Your task to perform on an android device: open app "Google News" (install if not already installed) Image 0: 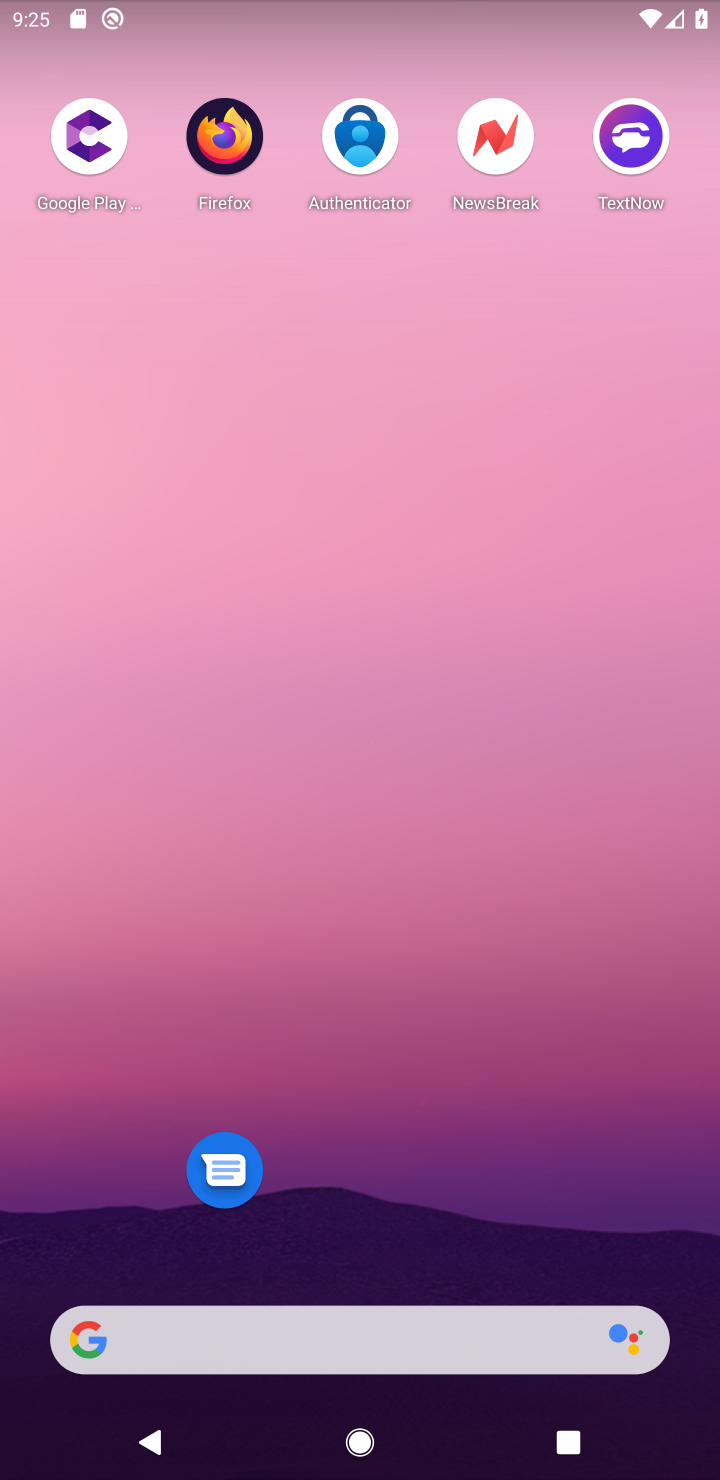
Step 0: drag from (498, 1286) to (340, 130)
Your task to perform on an android device: open app "Google News" (install if not already installed) Image 1: 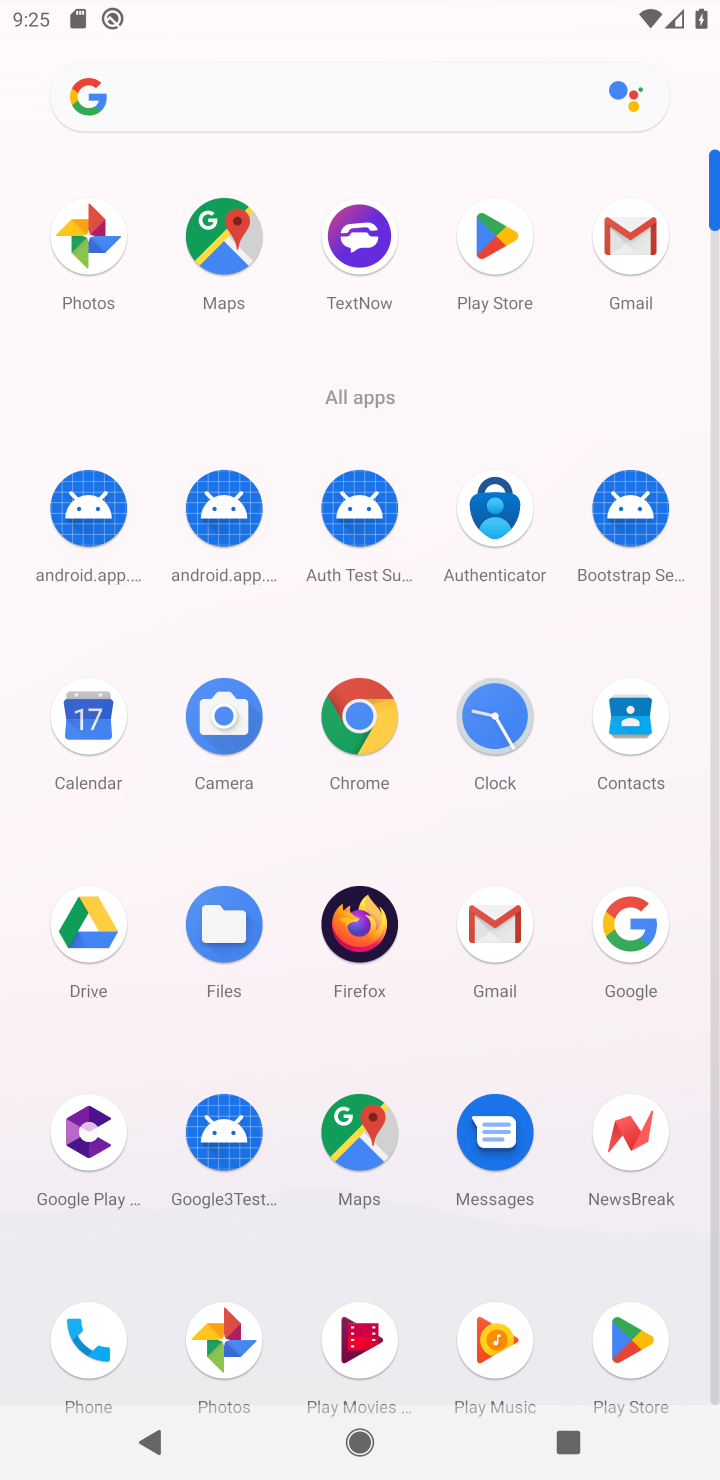
Step 1: click (499, 249)
Your task to perform on an android device: open app "Google News" (install if not already installed) Image 2: 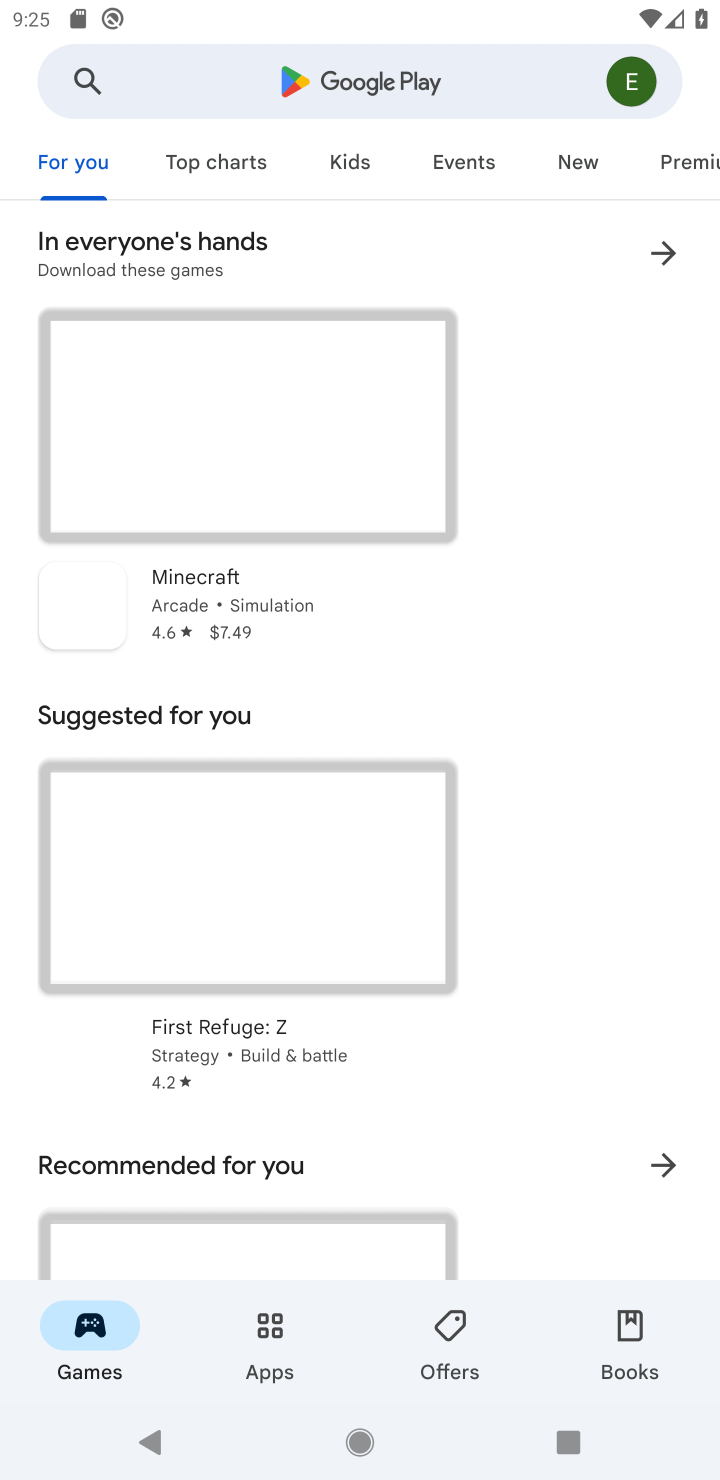
Step 2: click (211, 93)
Your task to perform on an android device: open app "Google News" (install if not already installed) Image 3: 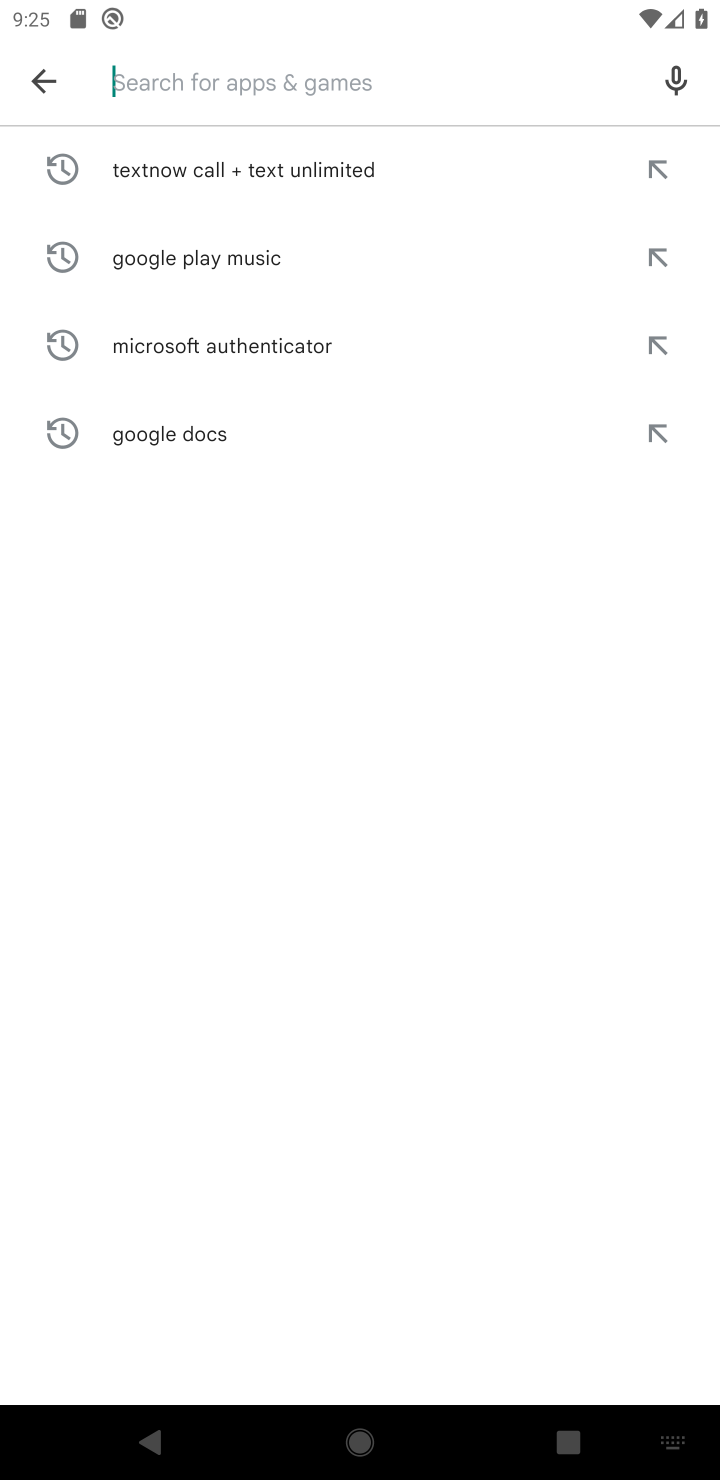
Step 3: type "Google News"
Your task to perform on an android device: open app "Google News" (install if not already installed) Image 4: 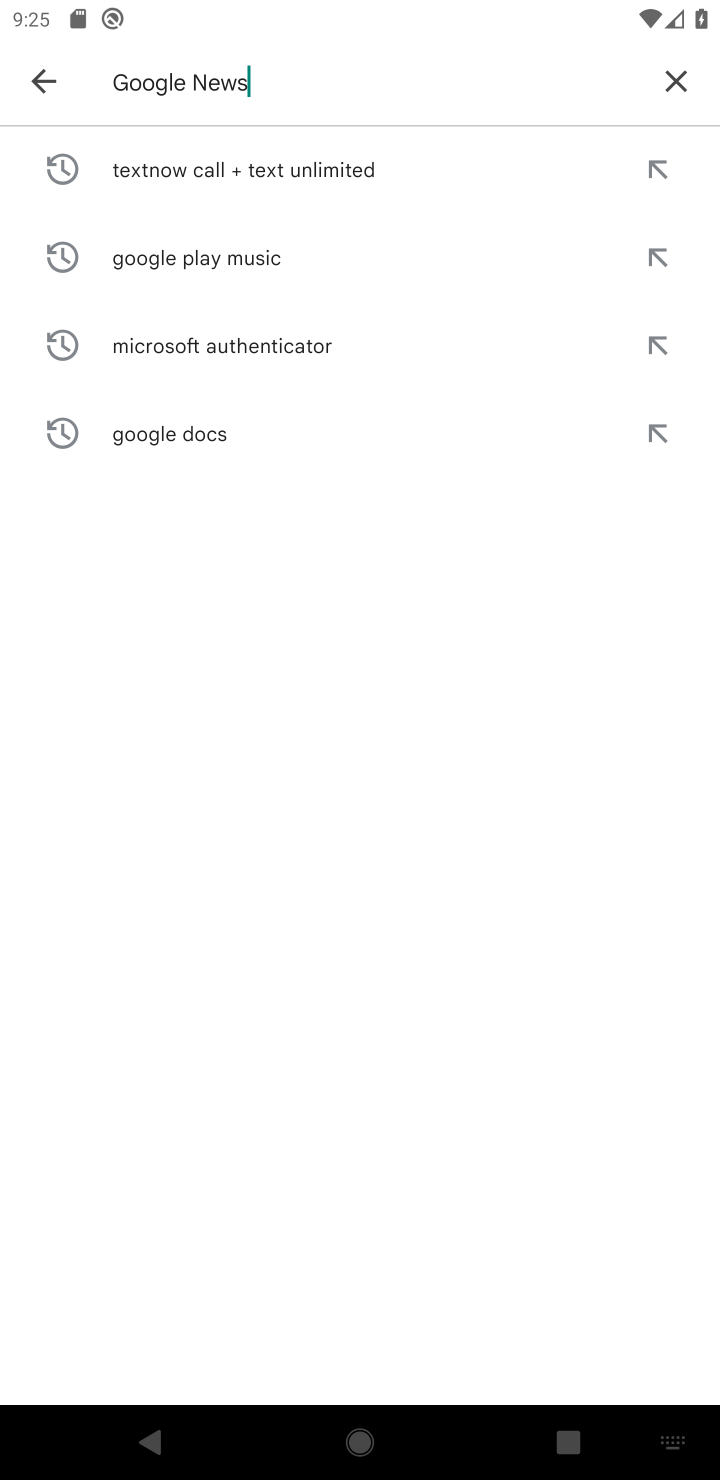
Step 4: type ""
Your task to perform on an android device: open app "Google News" (install if not already installed) Image 5: 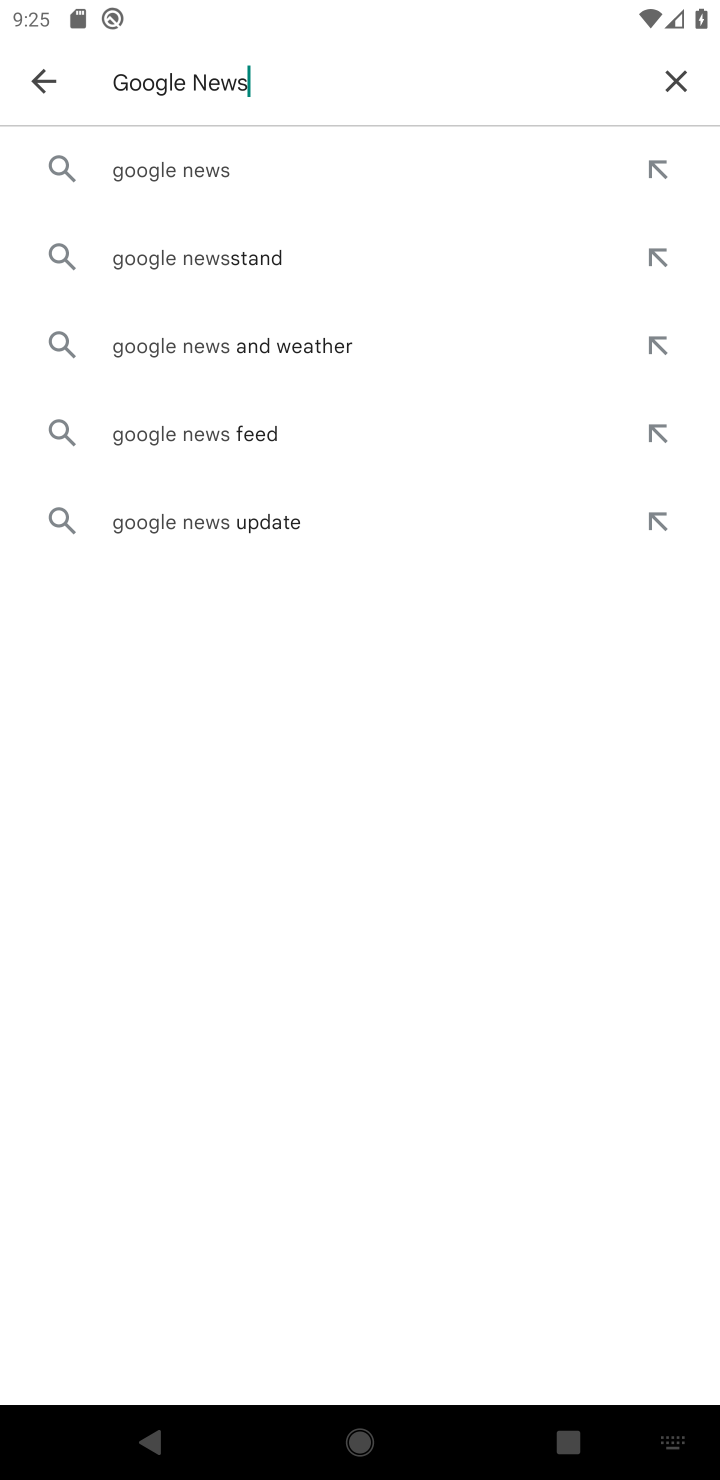
Step 5: click (169, 171)
Your task to perform on an android device: open app "Google News" (install if not already installed) Image 6: 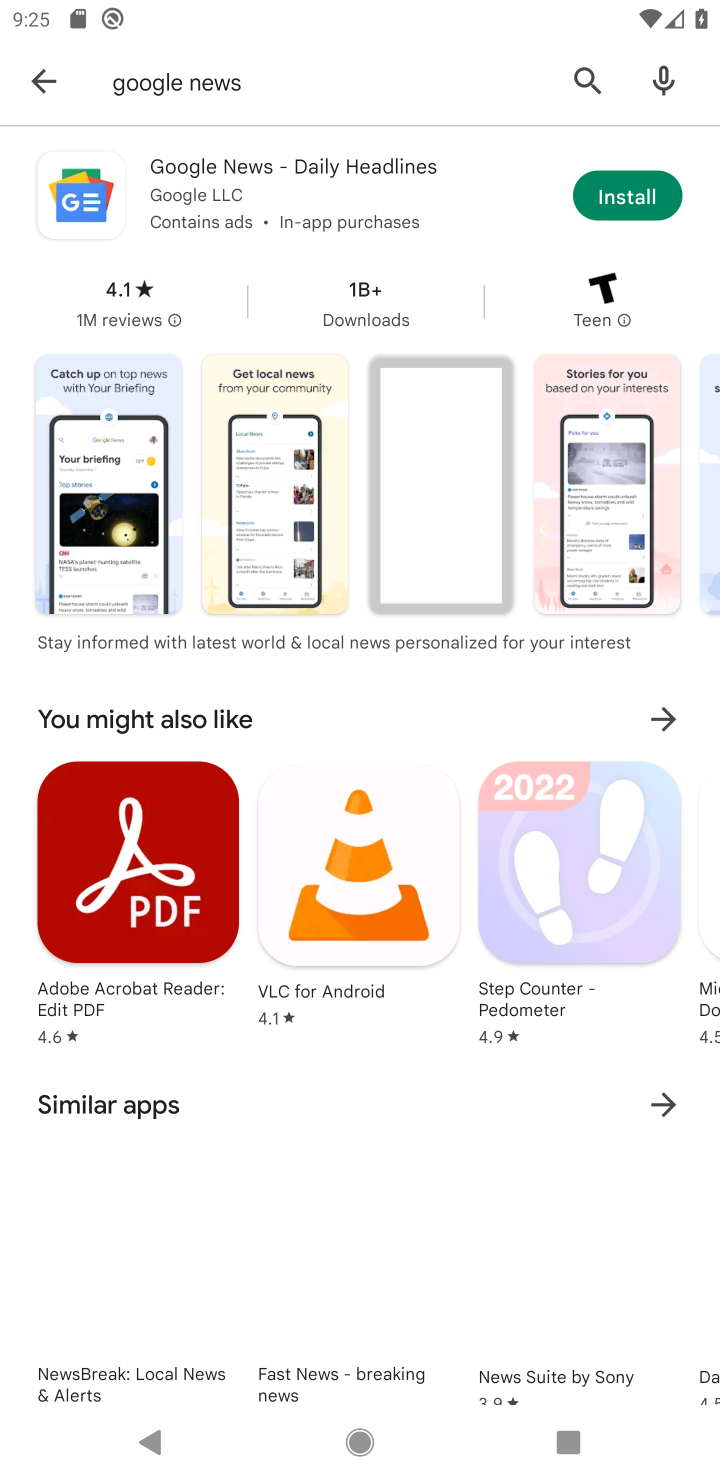
Step 6: click (585, 216)
Your task to perform on an android device: open app "Google News" (install if not already installed) Image 7: 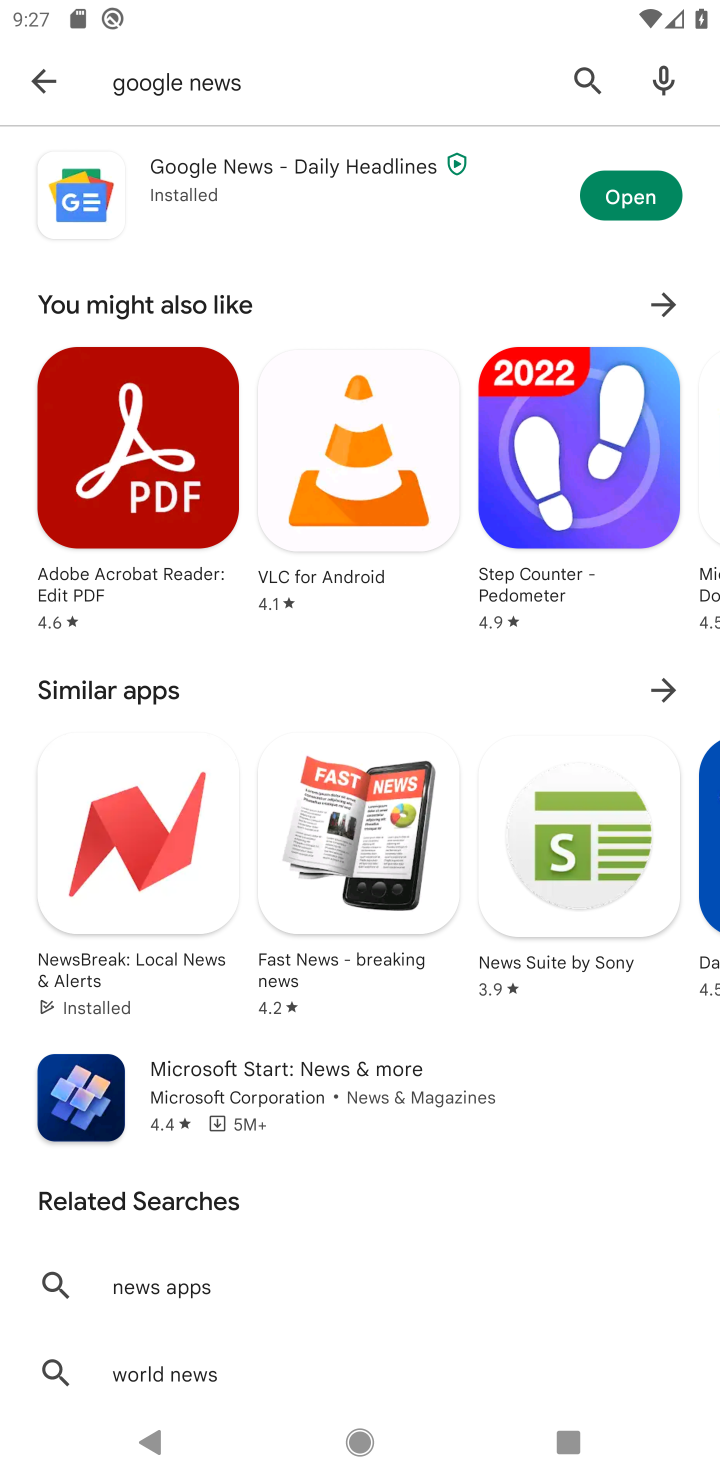
Step 7: click (602, 211)
Your task to perform on an android device: open app "Google News" (install if not already installed) Image 8: 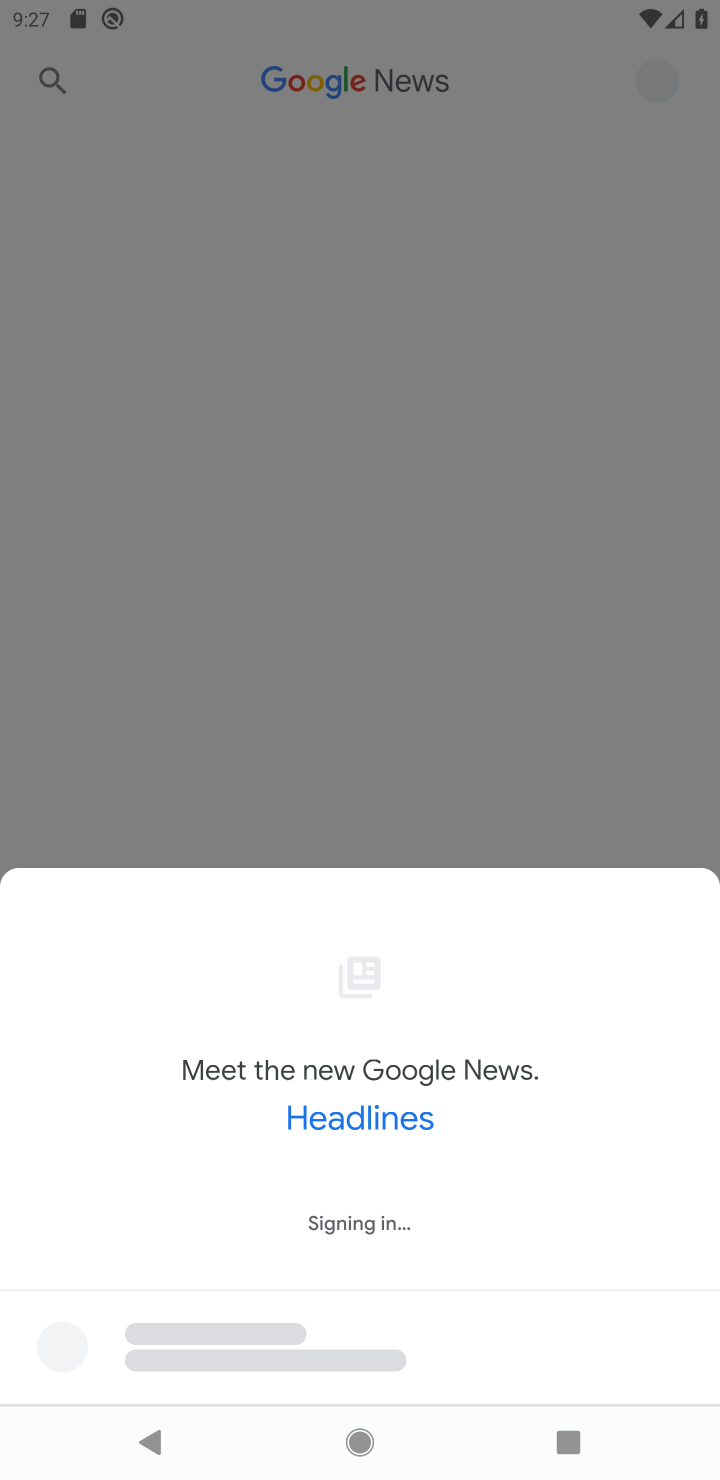
Step 8: task complete